Your task to perform on an android device: Open the calendar app, open the side menu, and click the "Day" option Image 0: 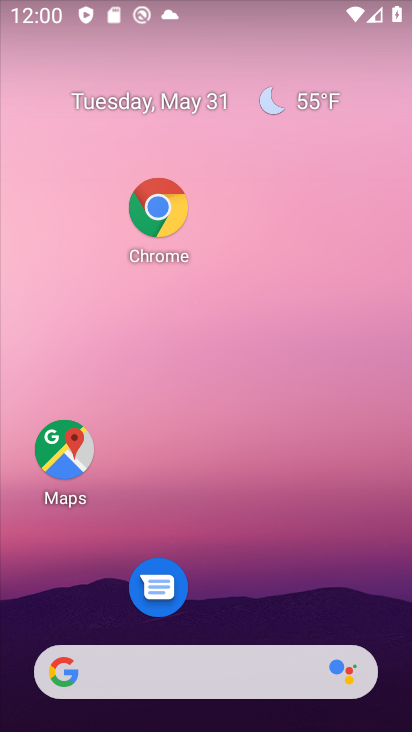
Step 0: drag from (288, 608) to (291, 170)
Your task to perform on an android device: Open the calendar app, open the side menu, and click the "Day" option Image 1: 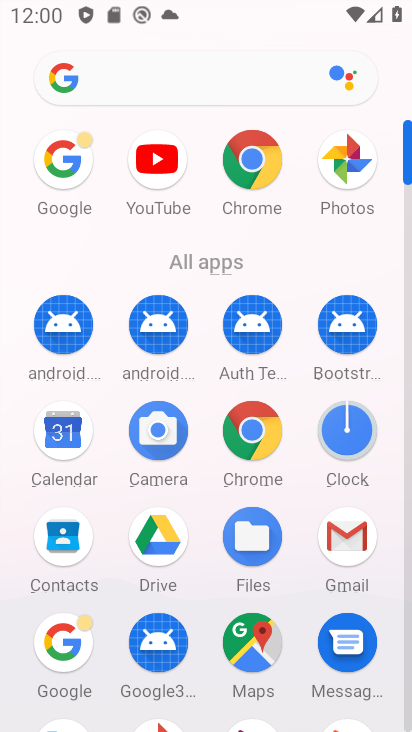
Step 1: click (58, 438)
Your task to perform on an android device: Open the calendar app, open the side menu, and click the "Day" option Image 2: 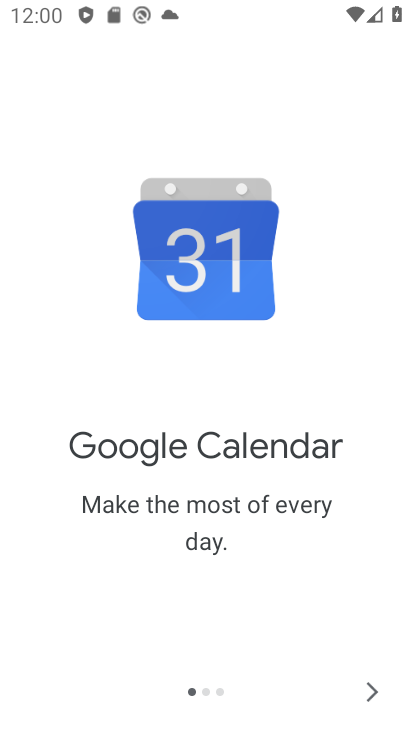
Step 2: click (362, 696)
Your task to perform on an android device: Open the calendar app, open the side menu, and click the "Day" option Image 3: 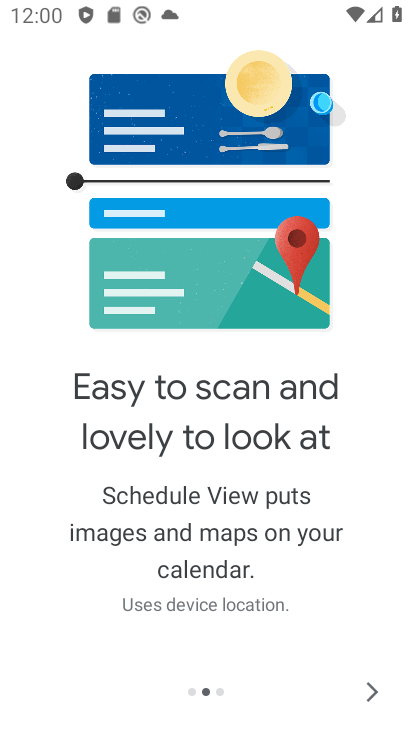
Step 3: click (362, 696)
Your task to perform on an android device: Open the calendar app, open the side menu, and click the "Day" option Image 4: 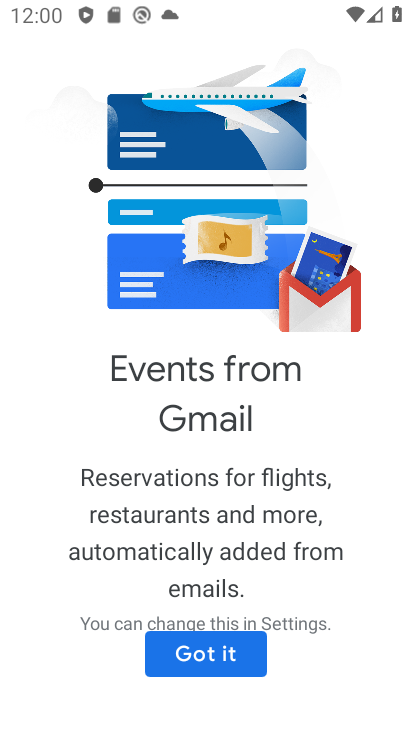
Step 4: click (241, 661)
Your task to perform on an android device: Open the calendar app, open the side menu, and click the "Day" option Image 5: 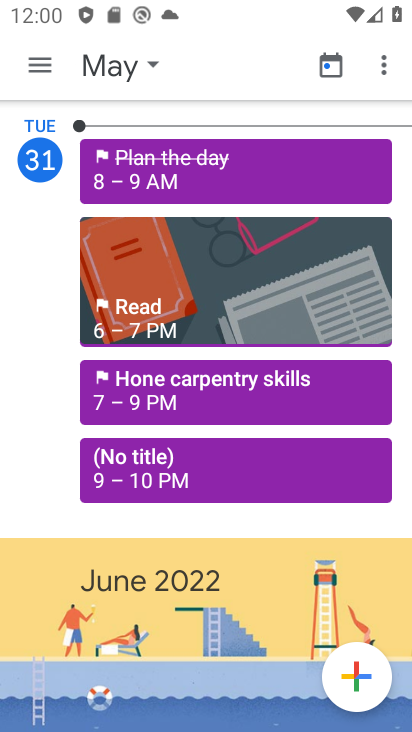
Step 5: click (43, 69)
Your task to perform on an android device: Open the calendar app, open the side menu, and click the "Day" option Image 6: 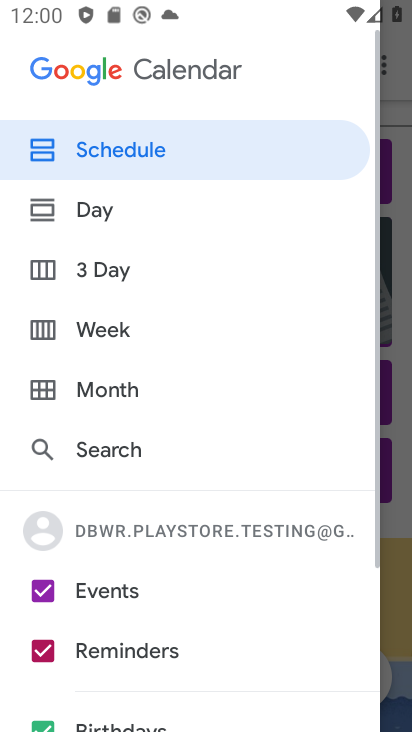
Step 6: click (100, 211)
Your task to perform on an android device: Open the calendar app, open the side menu, and click the "Day" option Image 7: 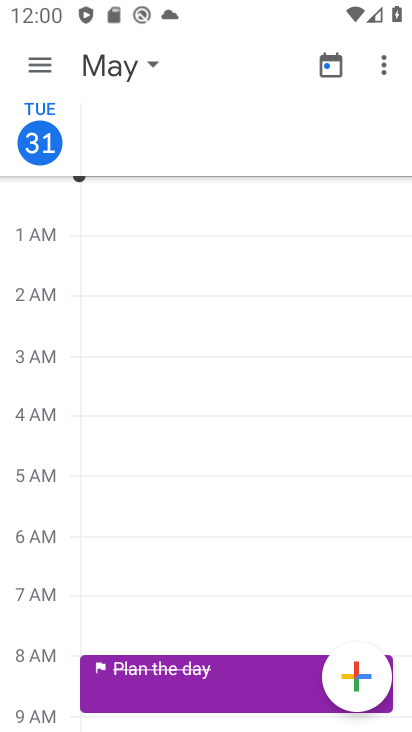
Step 7: task complete